Your task to perform on an android device: empty trash in the gmail app Image 0: 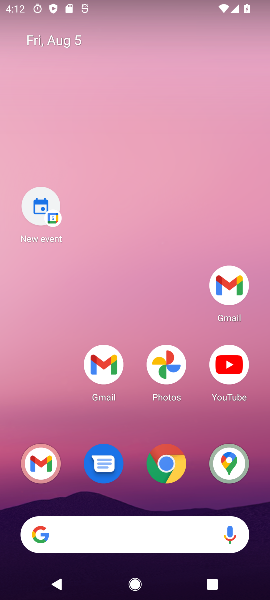
Step 0: drag from (195, 575) to (154, 213)
Your task to perform on an android device: empty trash in the gmail app Image 1: 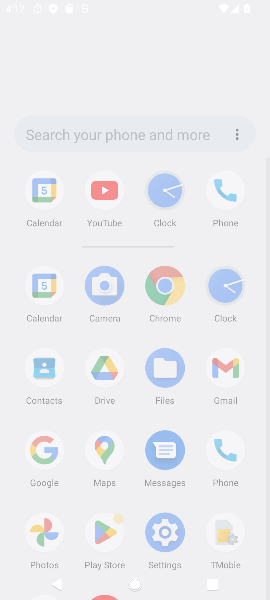
Step 1: drag from (121, 298) to (109, 207)
Your task to perform on an android device: empty trash in the gmail app Image 2: 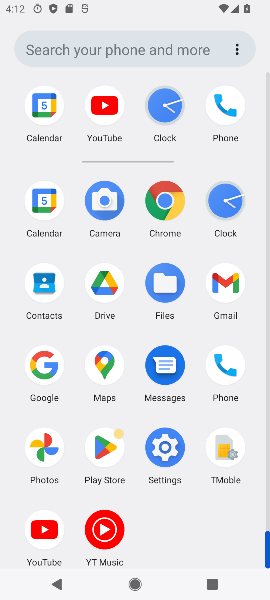
Step 2: click (220, 291)
Your task to perform on an android device: empty trash in the gmail app Image 3: 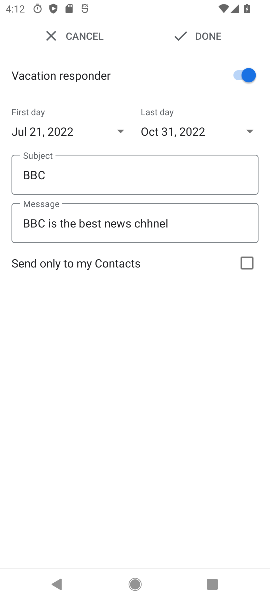
Step 3: press back button
Your task to perform on an android device: empty trash in the gmail app Image 4: 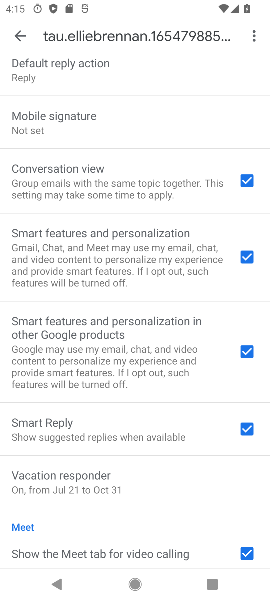
Step 4: press back button
Your task to perform on an android device: empty trash in the gmail app Image 5: 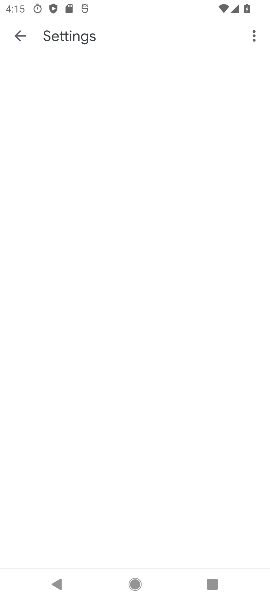
Step 5: press back button
Your task to perform on an android device: empty trash in the gmail app Image 6: 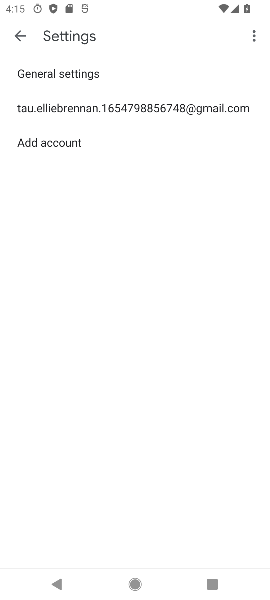
Step 6: press back button
Your task to perform on an android device: empty trash in the gmail app Image 7: 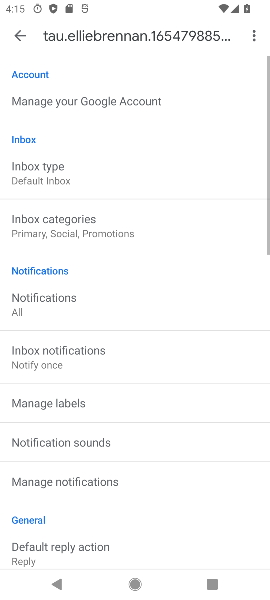
Step 7: press back button
Your task to perform on an android device: empty trash in the gmail app Image 8: 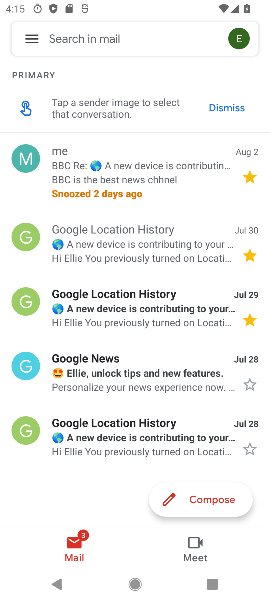
Step 8: click (25, 35)
Your task to perform on an android device: empty trash in the gmail app Image 9: 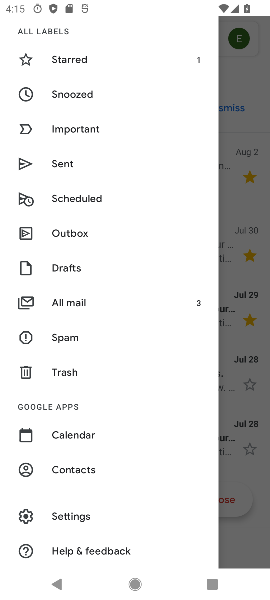
Step 9: click (60, 367)
Your task to perform on an android device: empty trash in the gmail app Image 10: 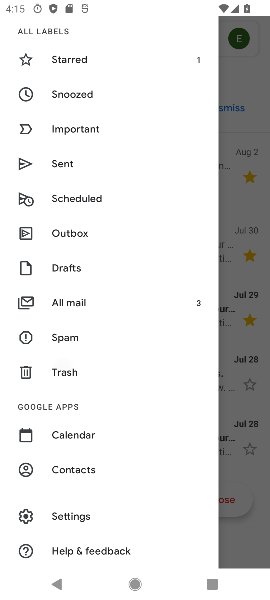
Step 10: click (60, 367)
Your task to perform on an android device: empty trash in the gmail app Image 11: 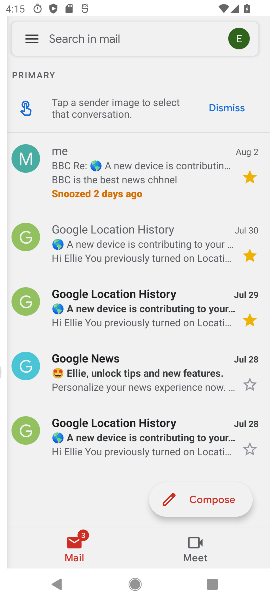
Step 11: click (60, 367)
Your task to perform on an android device: empty trash in the gmail app Image 12: 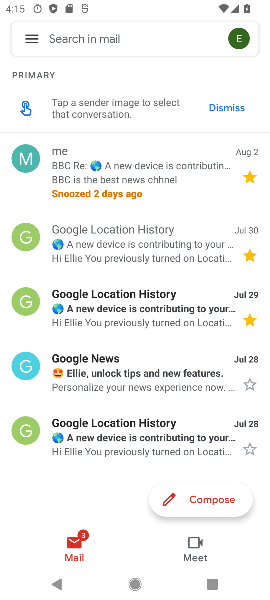
Step 12: click (60, 367)
Your task to perform on an android device: empty trash in the gmail app Image 13: 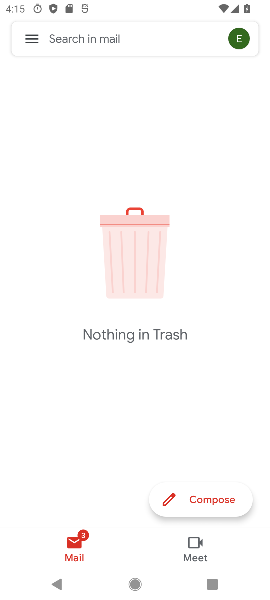
Step 13: task complete